Your task to perform on an android device: toggle priority inbox in the gmail app Image 0: 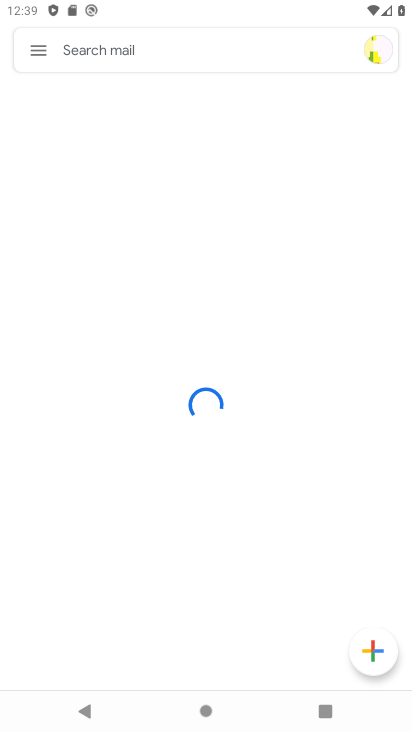
Step 0: press home button
Your task to perform on an android device: toggle priority inbox in the gmail app Image 1: 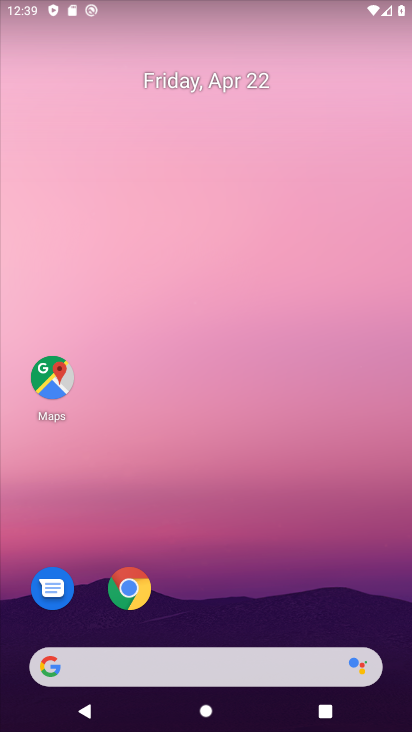
Step 1: drag from (249, 686) to (291, 154)
Your task to perform on an android device: toggle priority inbox in the gmail app Image 2: 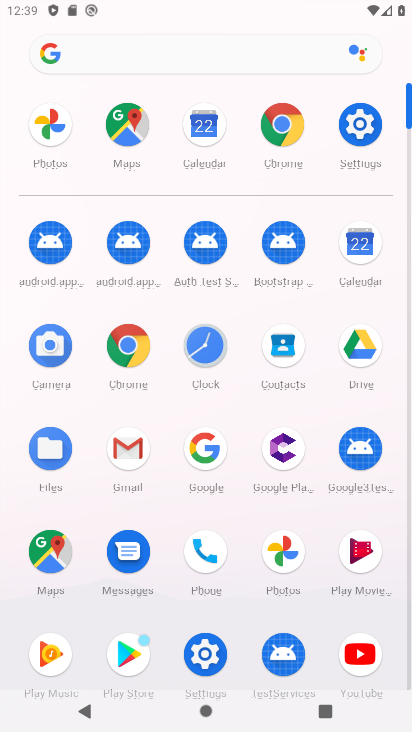
Step 2: click (113, 451)
Your task to perform on an android device: toggle priority inbox in the gmail app Image 3: 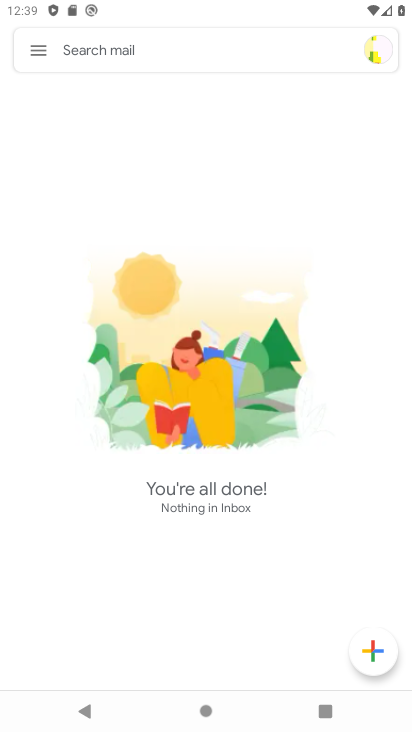
Step 3: click (43, 44)
Your task to perform on an android device: toggle priority inbox in the gmail app Image 4: 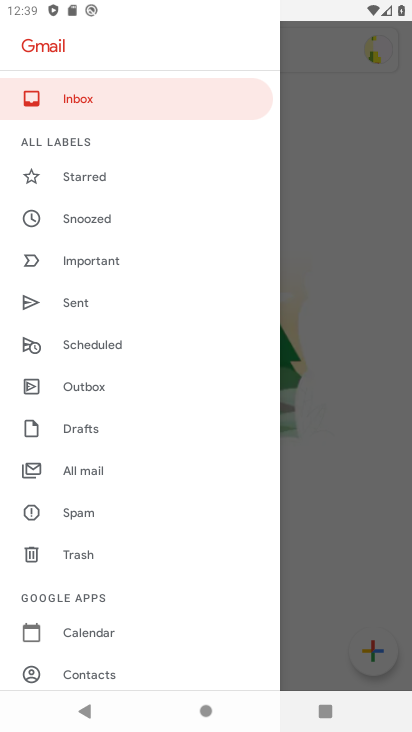
Step 4: drag from (93, 501) to (173, 300)
Your task to perform on an android device: toggle priority inbox in the gmail app Image 5: 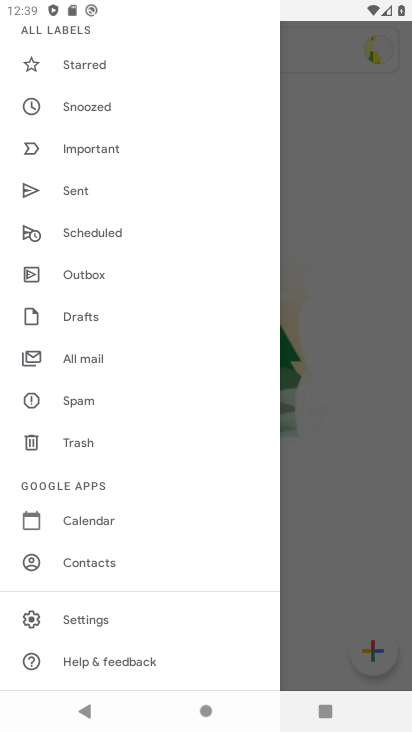
Step 5: click (74, 616)
Your task to perform on an android device: toggle priority inbox in the gmail app Image 6: 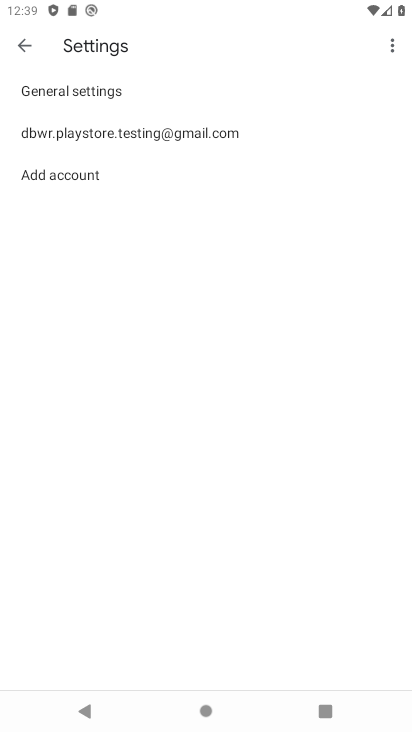
Step 6: click (171, 135)
Your task to perform on an android device: toggle priority inbox in the gmail app Image 7: 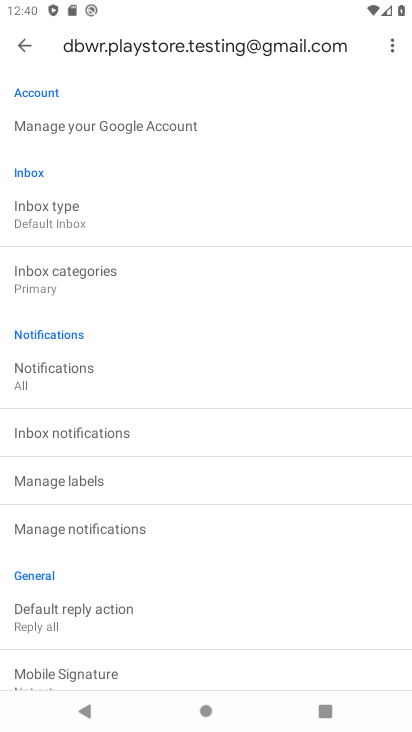
Step 7: click (75, 202)
Your task to perform on an android device: toggle priority inbox in the gmail app Image 8: 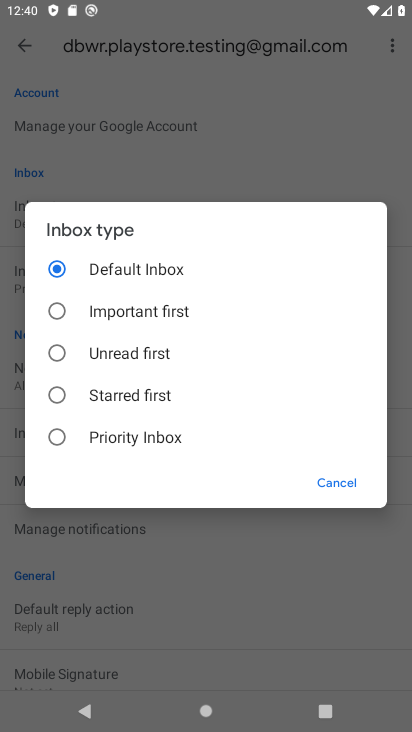
Step 8: click (127, 434)
Your task to perform on an android device: toggle priority inbox in the gmail app Image 9: 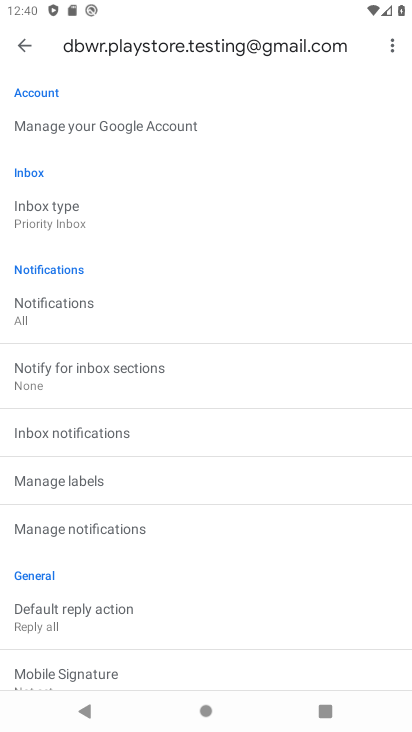
Step 9: task complete